Your task to perform on an android device: delete the emails in spam in the gmail app Image 0: 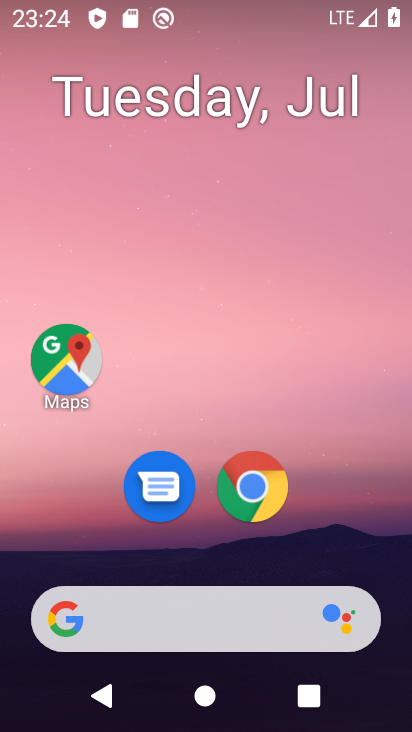
Step 0: press home button
Your task to perform on an android device: delete the emails in spam in the gmail app Image 1: 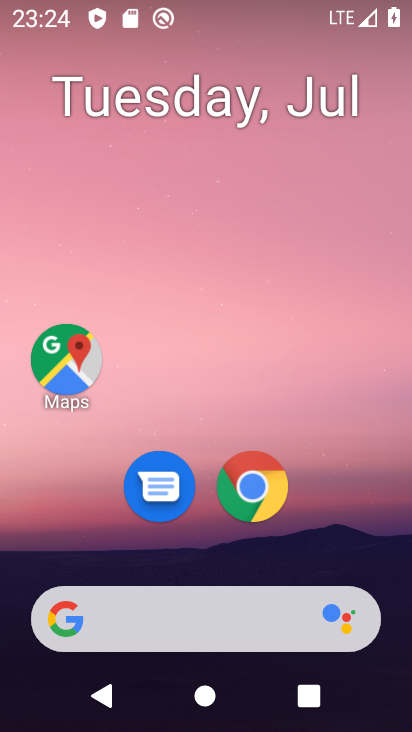
Step 1: drag from (347, 527) to (346, 92)
Your task to perform on an android device: delete the emails in spam in the gmail app Image 2: 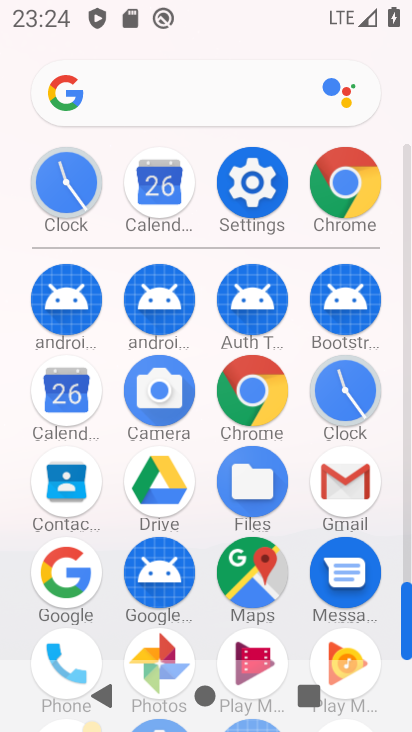
Step 2: click (341, 481)
Your task to perform on an android device: delete the emails in spam in the gmail app Image 3: 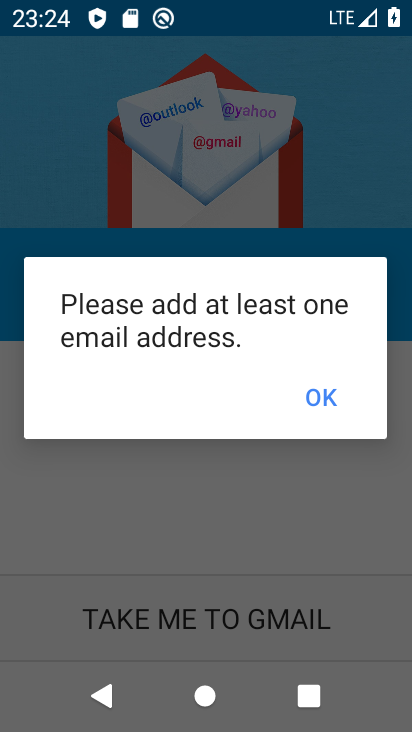
Step 3: task complete